Your task to perform on an android device: allow notifications from all sites in the chrome app Image 0: 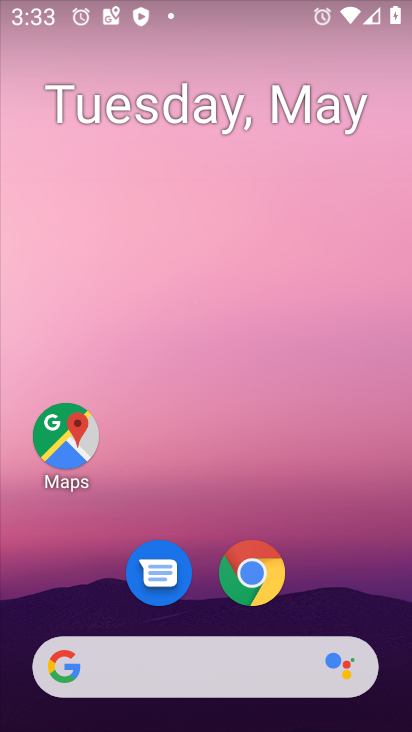
Step 0: drag from (332, 615) to (255, 16)
Your task to perform on an android device: allow notifications from all sites in the chrome app Image 1: 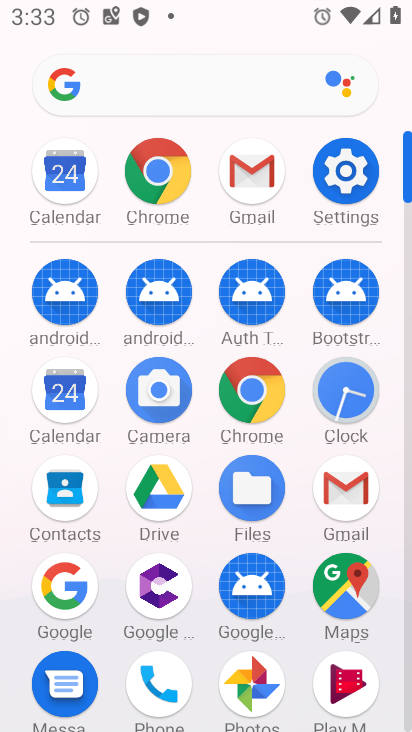
Step 1: drag from (8, 569) to (23, 231)
Your task to perform on an android device: allow notifications from all sites in the chrome app Image 2: 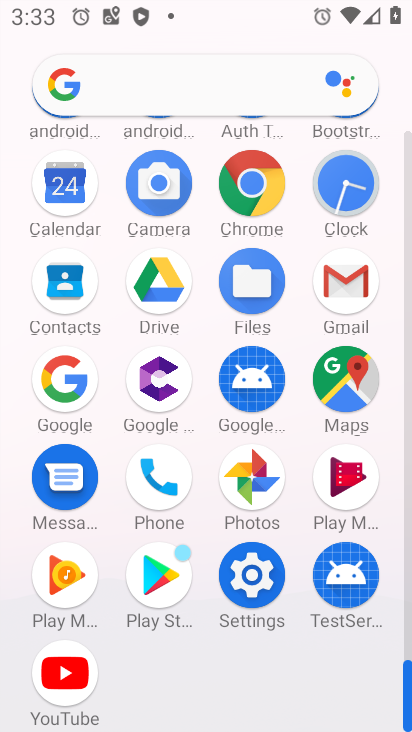
Step 2: click (254, 175)
Your task to perform on an android device: allow notifications from all sites in the chrome app Image 3: 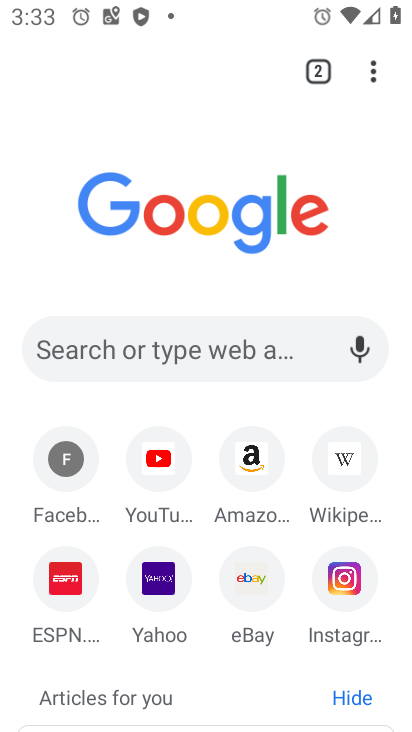
Step 3: drag from (366, 61) to (108, 599)
Your task to perform on an android device: allow notifications from all sites in the chrome app Image 4: 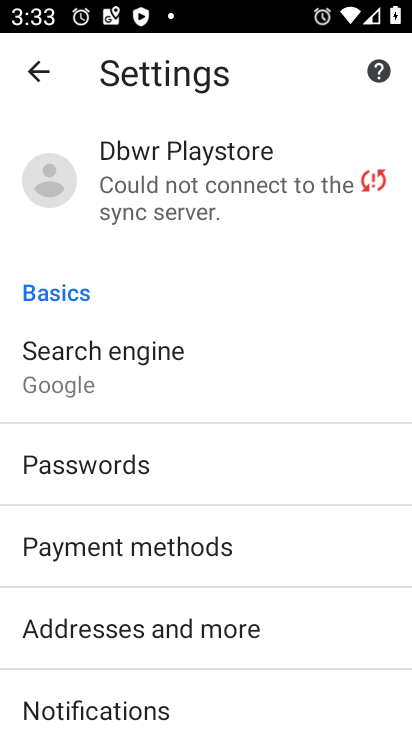
Step 4: drag from (154, 619) to (208, 301)
Your task to perform on an android device: allow notifications from all sites in the chrome app Image 5: 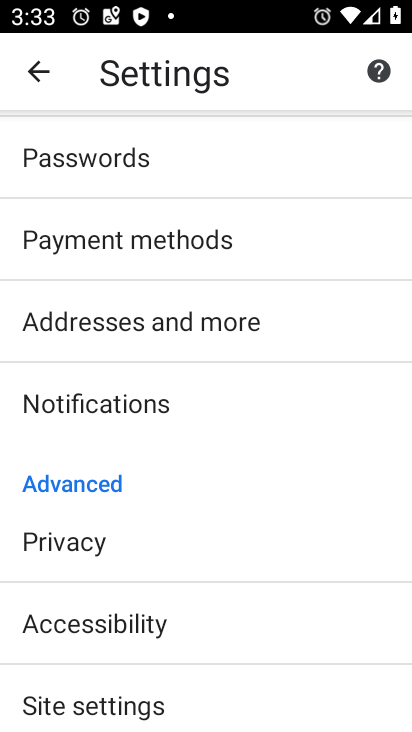
Step 5: drag from (210, 677) to (260, 282)
Your task to perform on an android device: allow notifications from all sites in the chrome app Image 6: 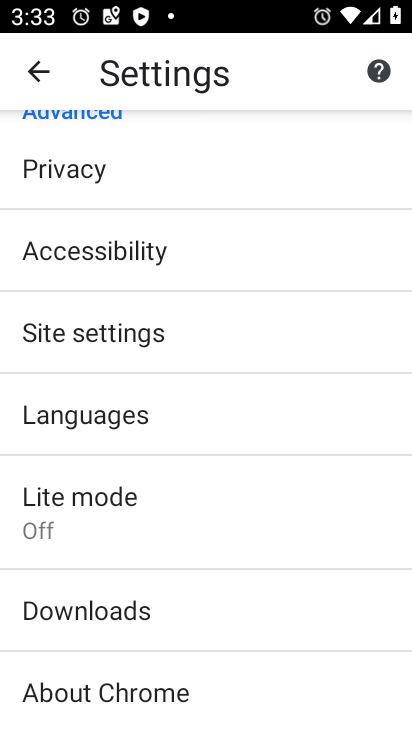
Step 6: click (117, 333)
Your task to perform on an android device: allow notifications from all sites in the chrome app Image 7: 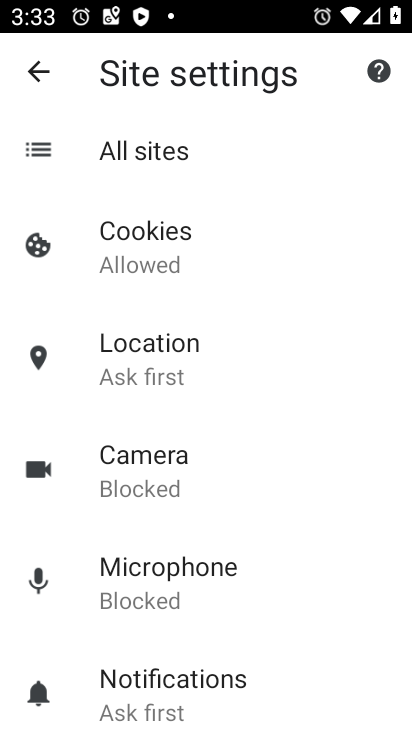
Step 7: drag from (190, 571) to (230, 246)
Your task to perform on an android device: allow notifications from all sites in the chrome app Image 8: 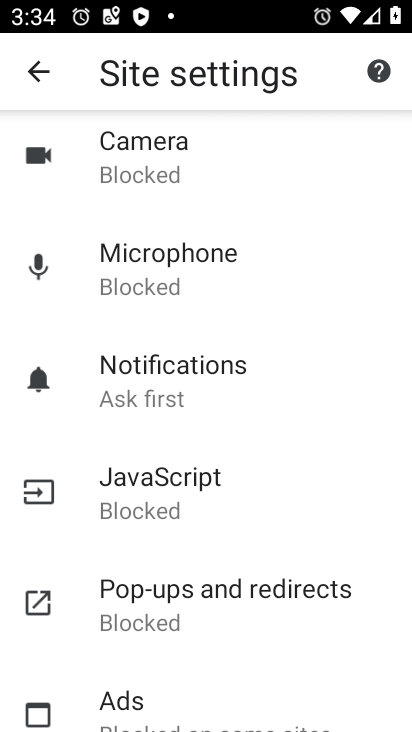
Step 8: click (164, 277)
Your task to perform on an android device: allow notifications from all sites in the chrome app Image 9: 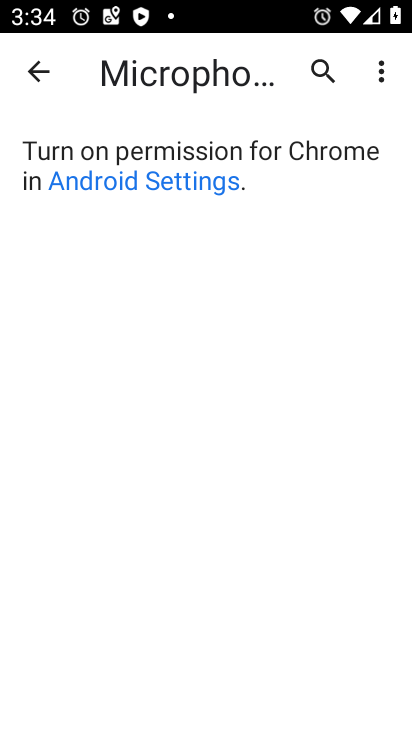
Step 9: click (44, 75)
Your task to perform on an android device: allow notifications from all sites in the chrome app Image 10: 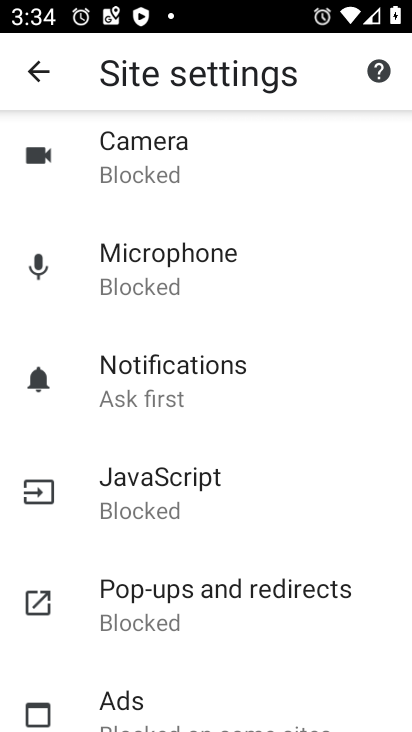
Step 10: click (178, 385)
Your task to perform on an android device: allow notifications from all sites in the chrome app Image 11: 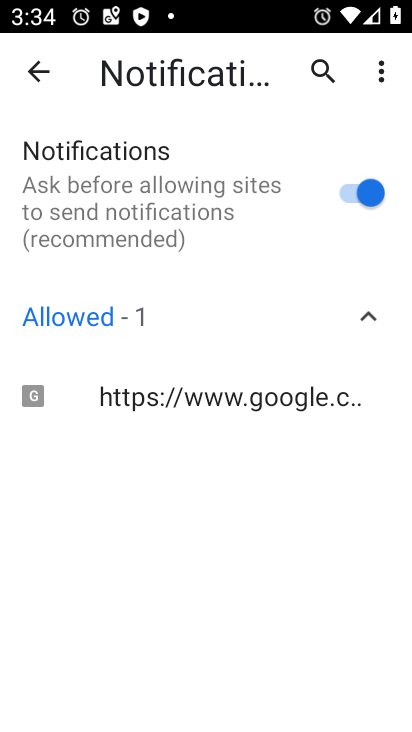
Step 11: task complete